Your task to perform on an android device: change the upload size in google photos Image 0: 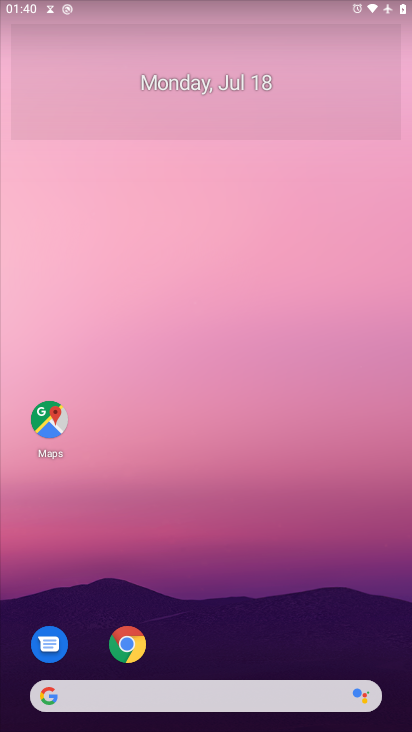
Step 0: press home button
Your task to perform on an android device: change the upload size in google photos Image 1: 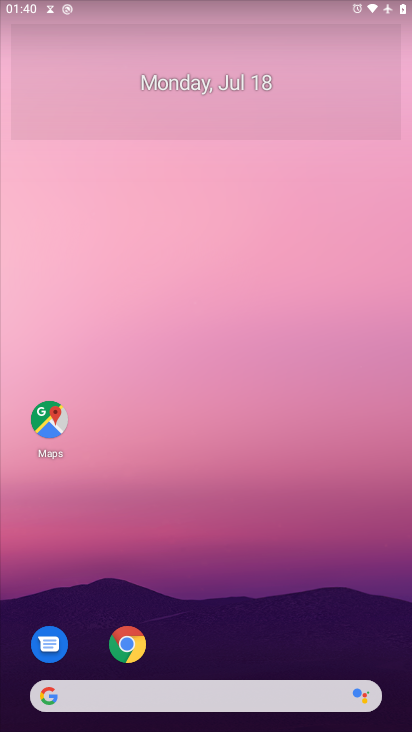
Step 1: drag from (255, 655) to (277, 167)
Your task to perform on an android device: change the upload size in google photos Image 2: 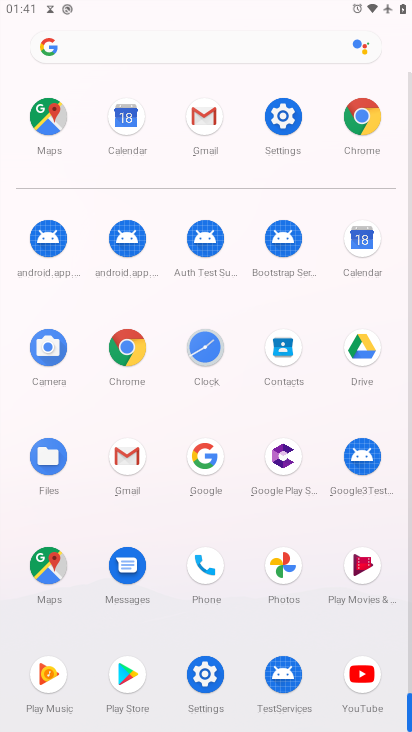
Step 2: click (284, 557)
Your task to perform on an android device: change the upload size in google photos Image 3: 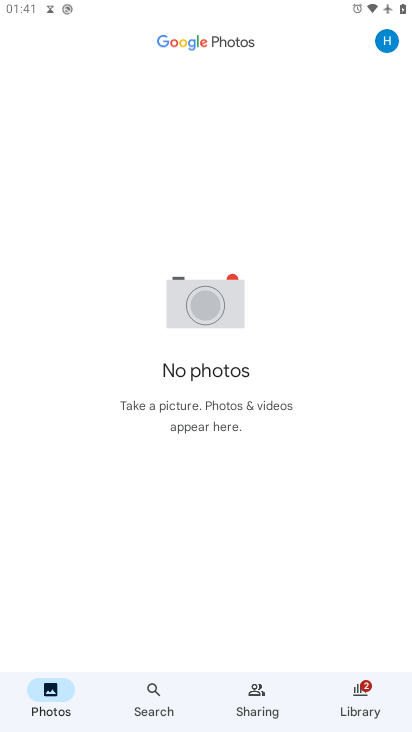
Step 3: click (383, 47)
Your task to perform on an android device: change the upload size in google photos Image 4: 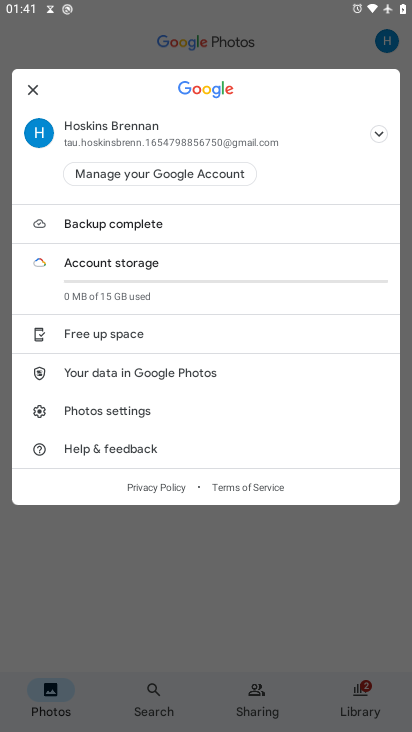
Step 4: click (60, 402)
Your task to perform on an android device: change the upload size in google photos Image 5: 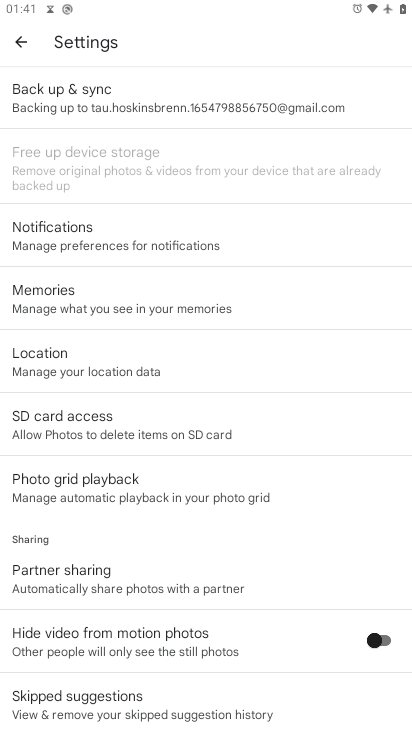
Step 5: click (66, 114)
Your task to perform on an android device: change the upload size in google photos Image 6: 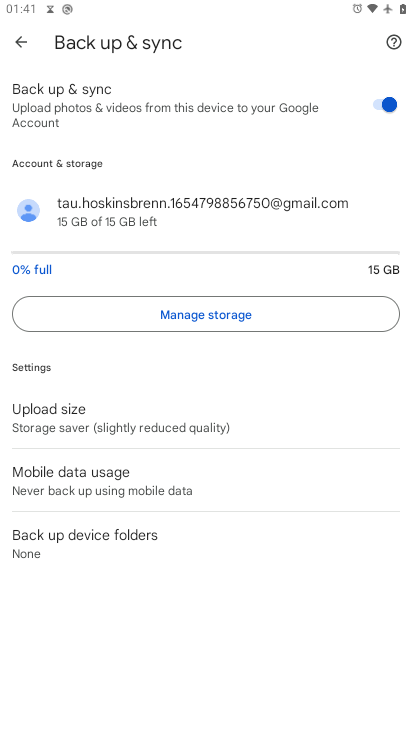
Step 6: click (84, 416)
Your task to perform on an android device: change the upload size in google photos Image 7: 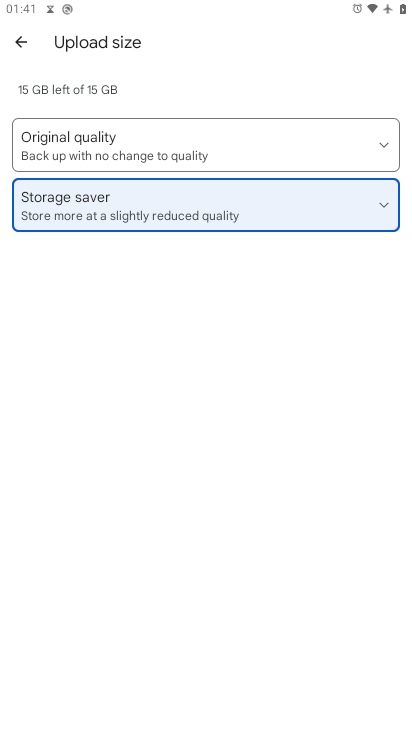
Step 7: click (48, 150)
Your task to perform on an android device: change the upload size in google photos Image 8: 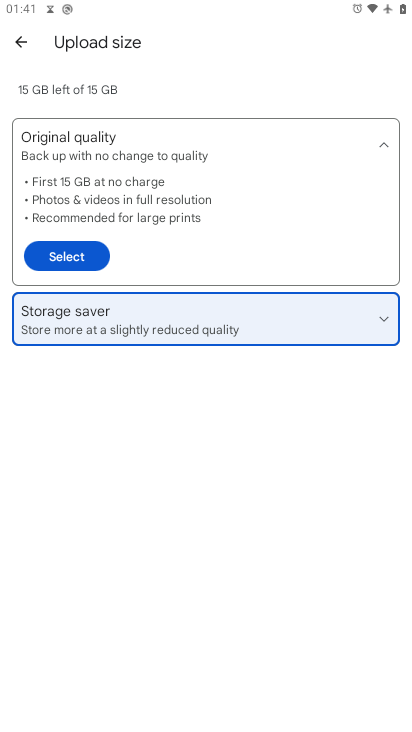
Step 8: click (85, 261)
Your task to perform on an android device: change the upload size in google photos Image 9: 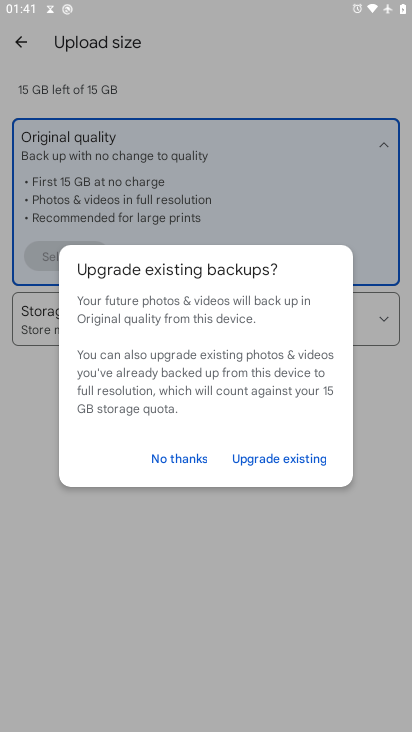
Step 9: click (190, 468)
Your task to perform on an android device: change the upload size in google photos Image 10: 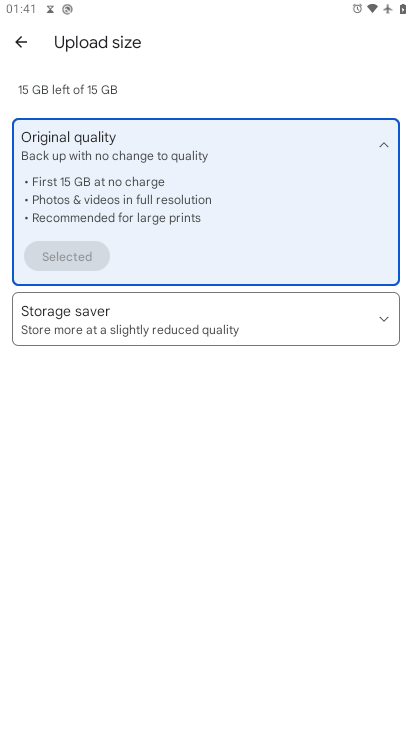
Step 10: task complete